Your task to perform on an android device: Is it going to rain tomorrow? Image 0: 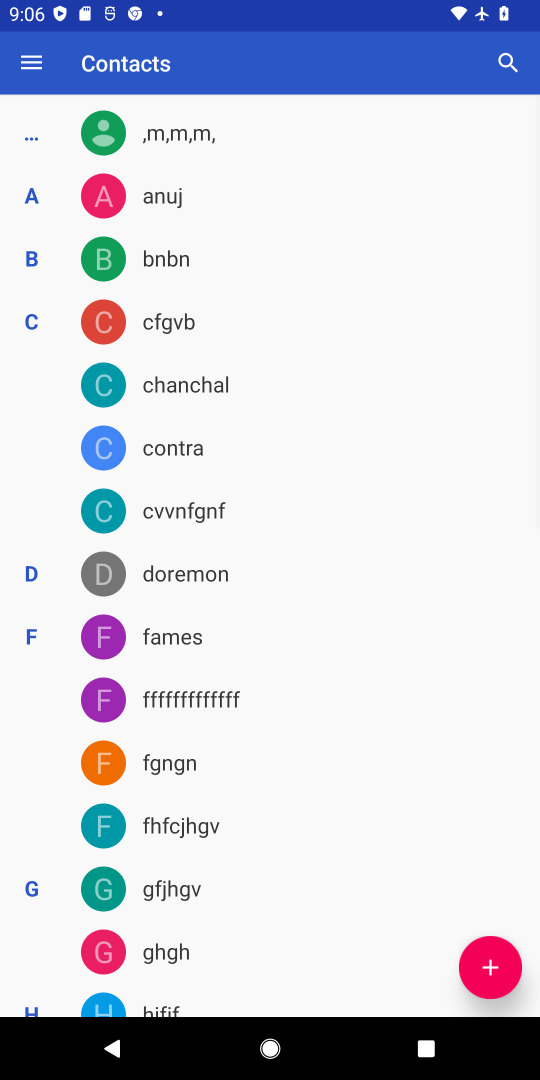
Step 0: press home button
Your task to perform on an android device: Is it going to rain tomorrow? Image 1: 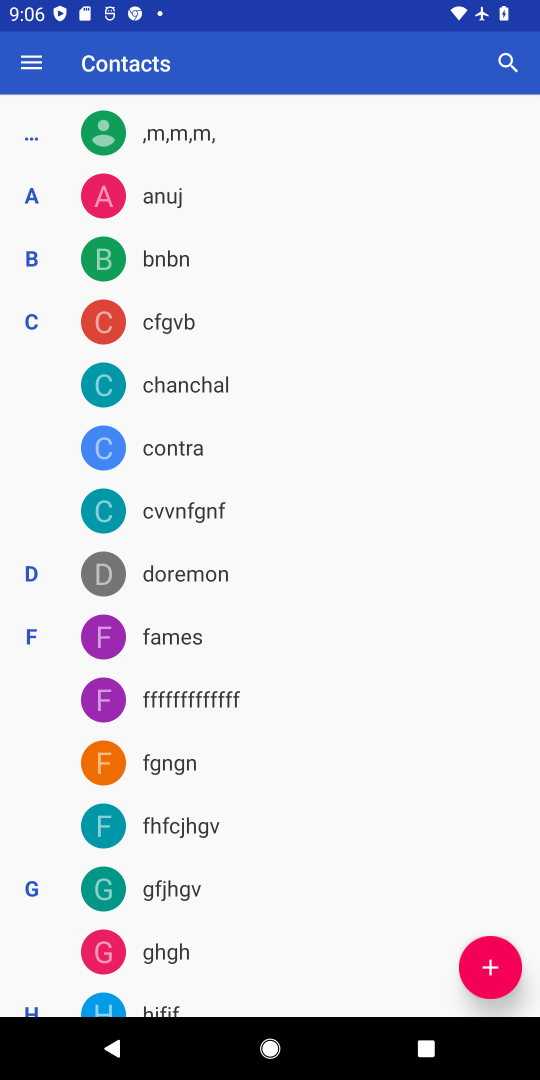
Step 1: press home button
Your task to perform on an android device: Is it going to rain tomorrow? Image 2: 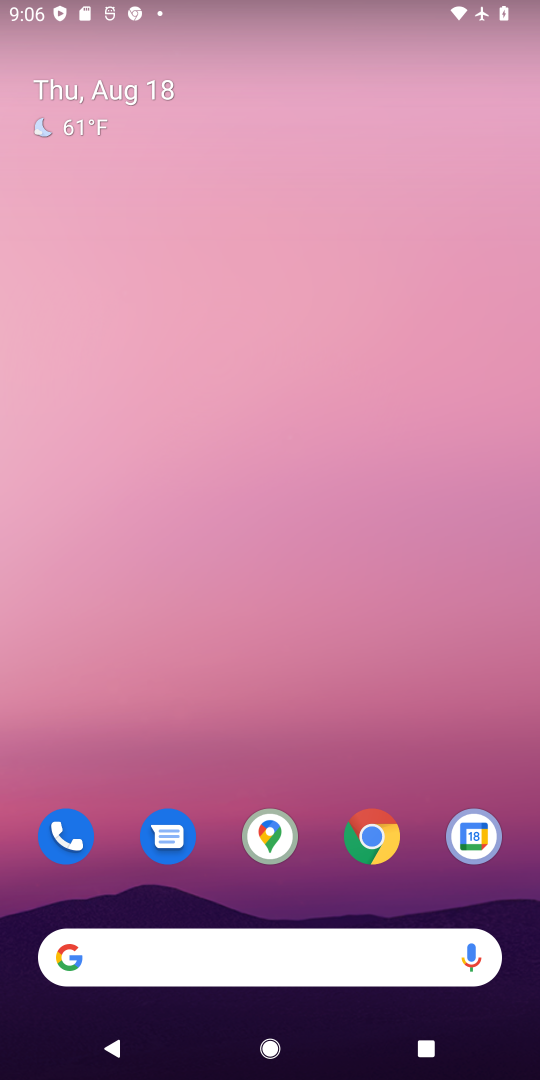
Step 2: click (94, 78)
Your task to perform on an android device: Is it going to rain tomorrow? Image 3: 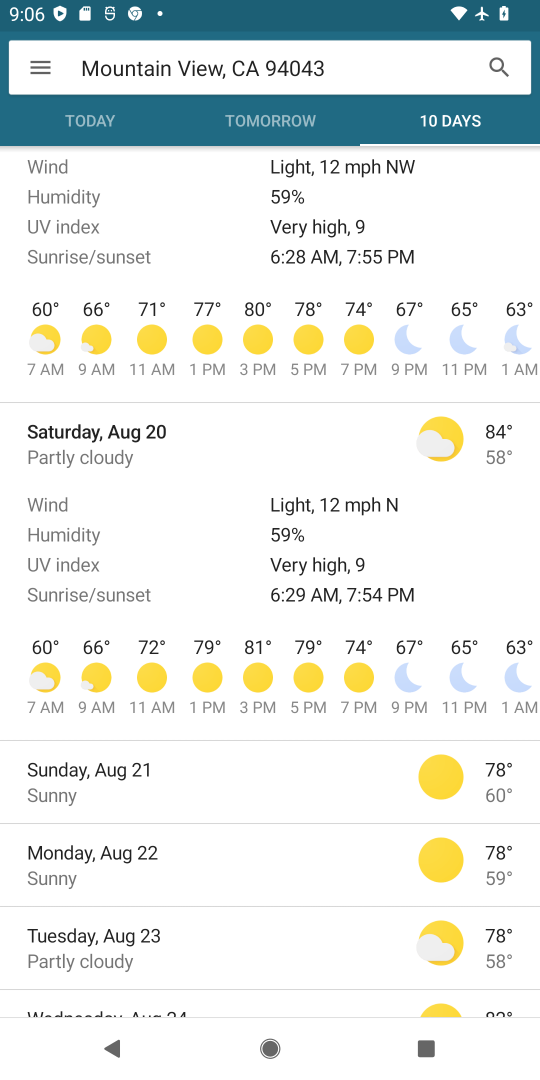
Step 3: drag from (260, 354) to (228, 1074)
Your task to perform on an android device: Is it going to rain tomorrow? Image 4: 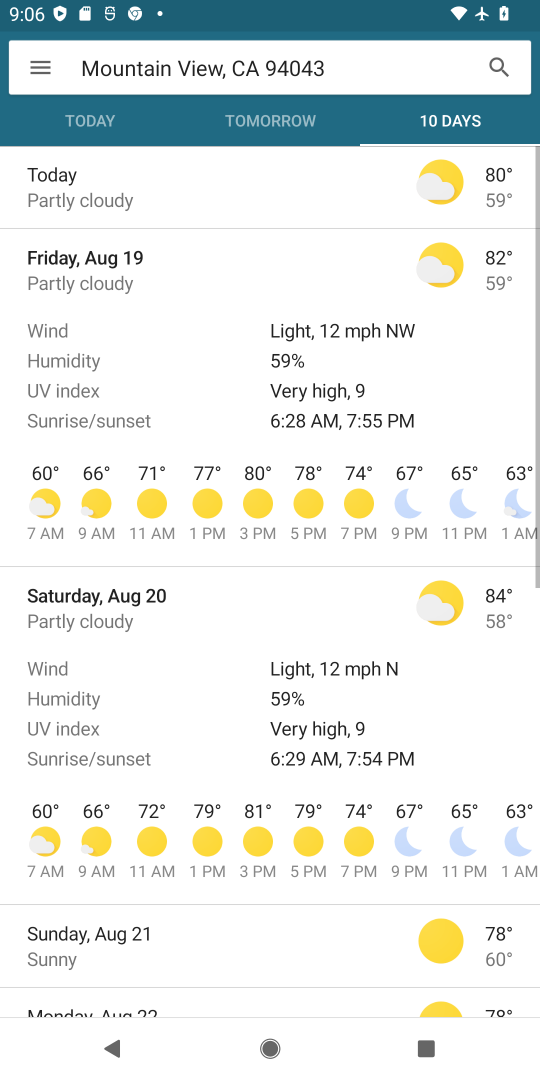
Step 4: click (312, 134)
Your task to perform on an android device: Is it going to rain tomorrow? Image 5: 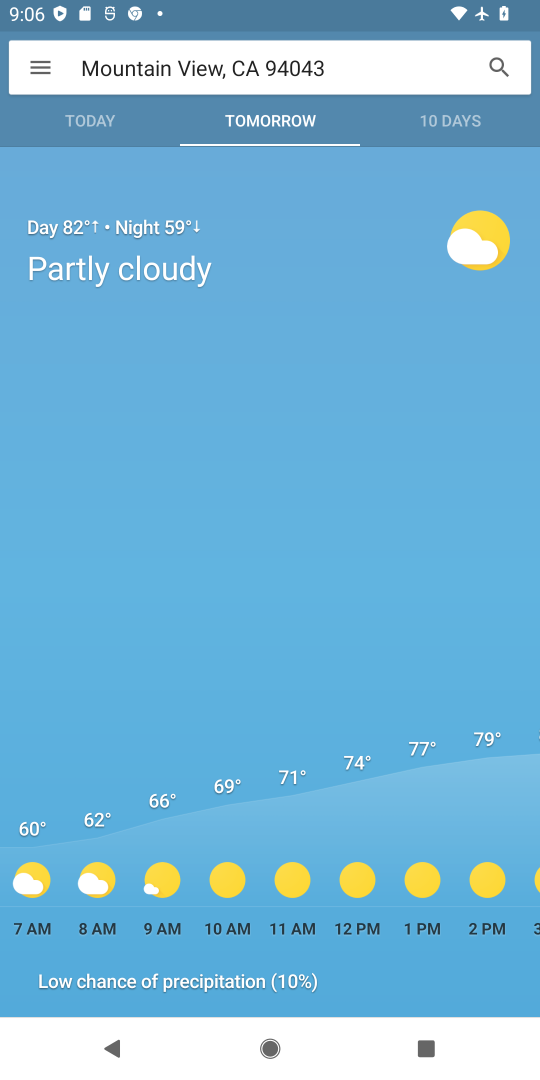
Step 5: task complete